Your task to perform on an android device: Go to Google Image 0: 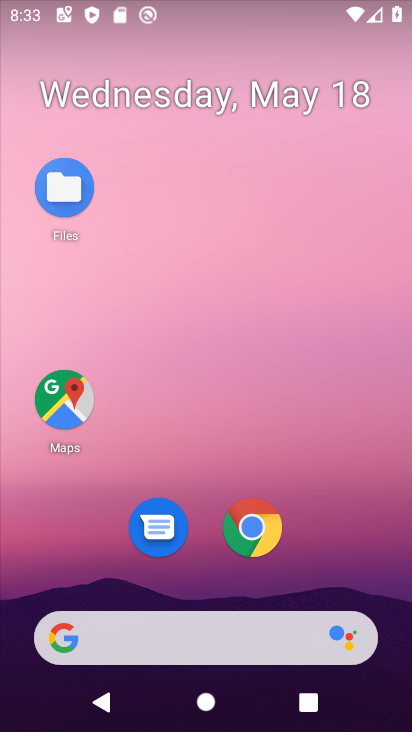
Step 0: drag from (254, 697) to (176, 190)
Your task to perform on an android device: Go to Google Image 1: 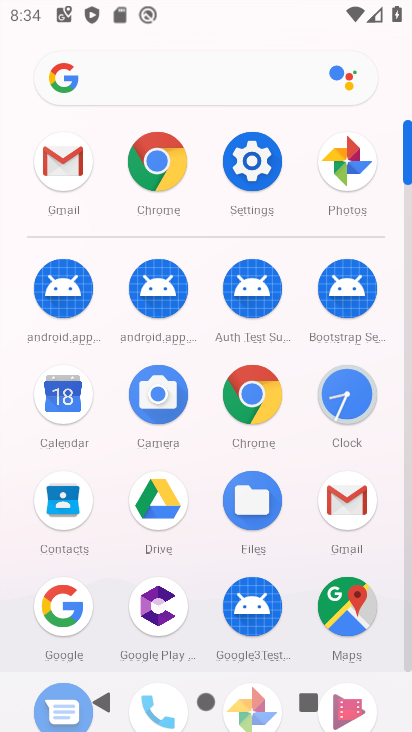
Step 1: click (59, 617)
Your task to perform on an android device: Go to Google Image 2: 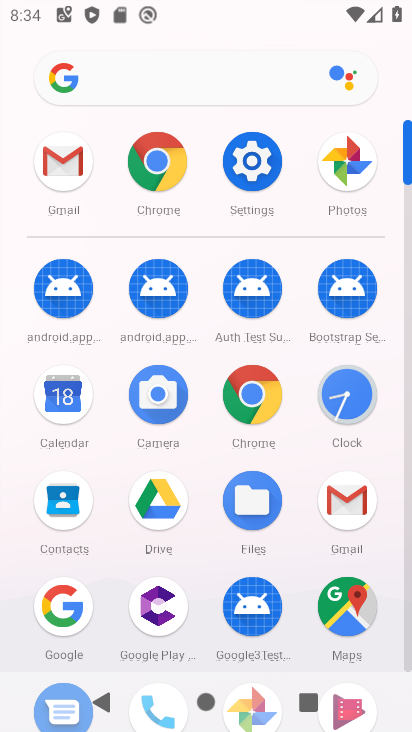
Step 2: click (59, 614)
Your task to perform on an android device: Go to Google Image 3: 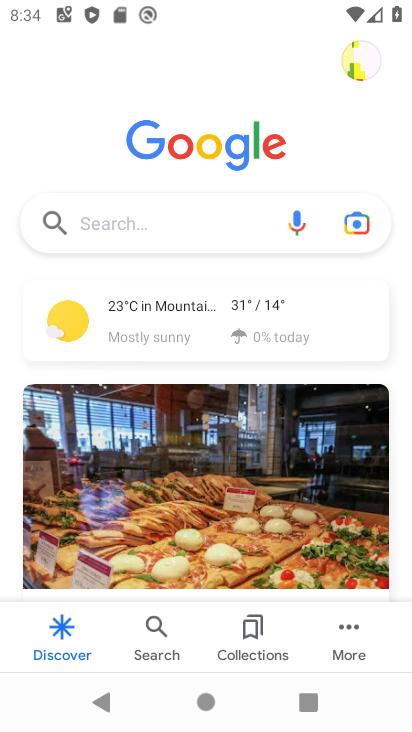
Step 3: click (64, 611)
Your task to perform on an android device: Go to Google Image 4: 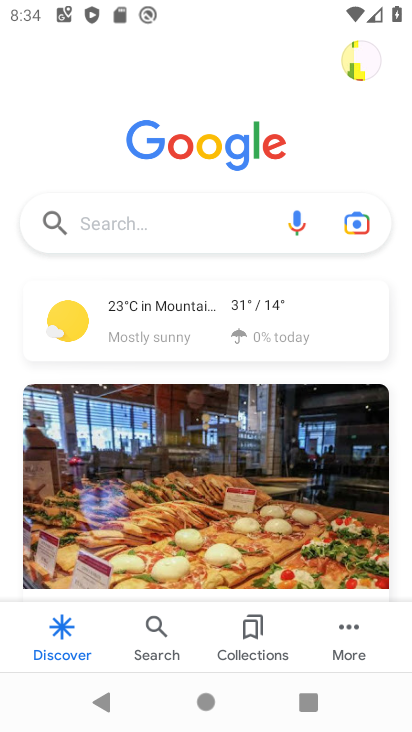
Step 4: task complete